Your task to perform on an android device: What's on my calendar tomorrow? Image 0: 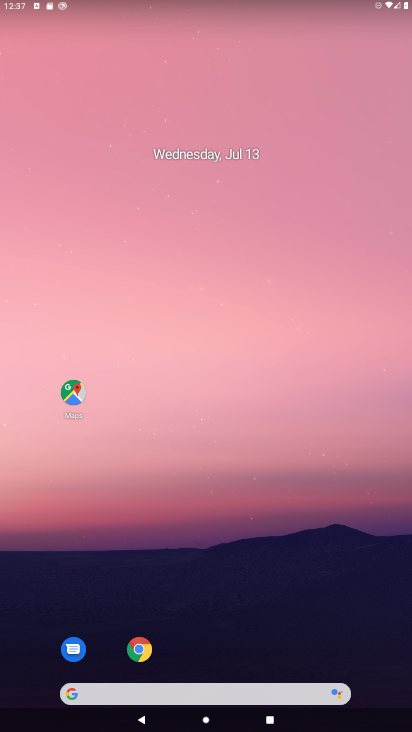
Step 0: drag from (362, 649) to (331, 137)
Your task to perform on an android device: What's on my calendar tomorrow? Image 1: 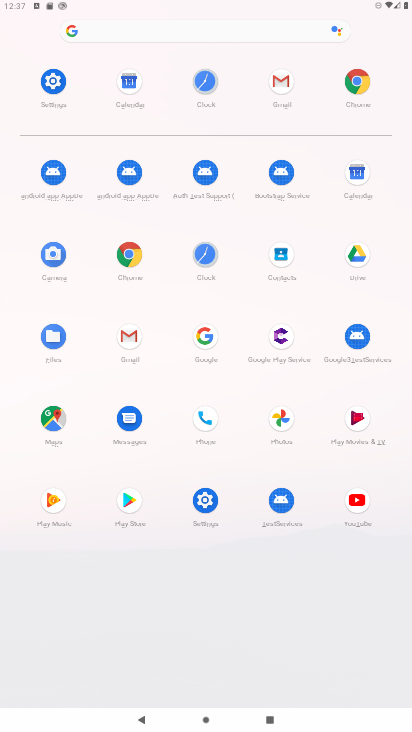
Step 1: click (355, 172)
Your task to perform on an android device: What's on my calendar tomorrow? Image 2: 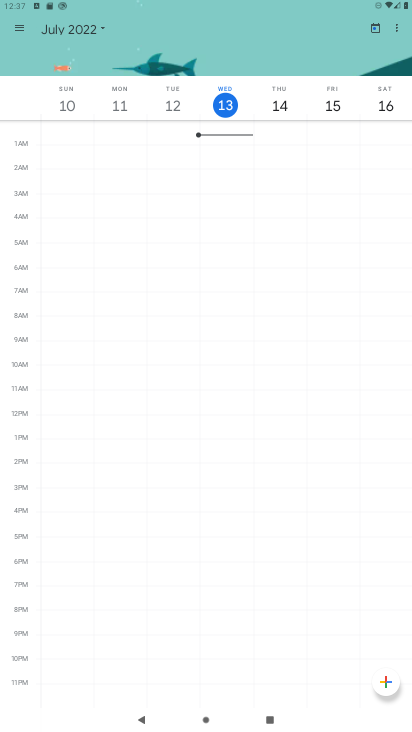
Step 2: click (15, 26)
Your task to perform on an android device: What's on my calendar tomorrow? Image 3: 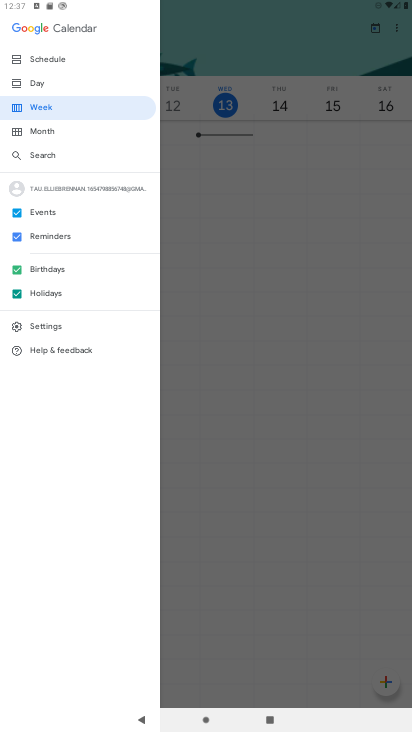
Step 3: click (38, 81)
Your task to perform on an android device: What's on my calendar tomorrow? Image 4: 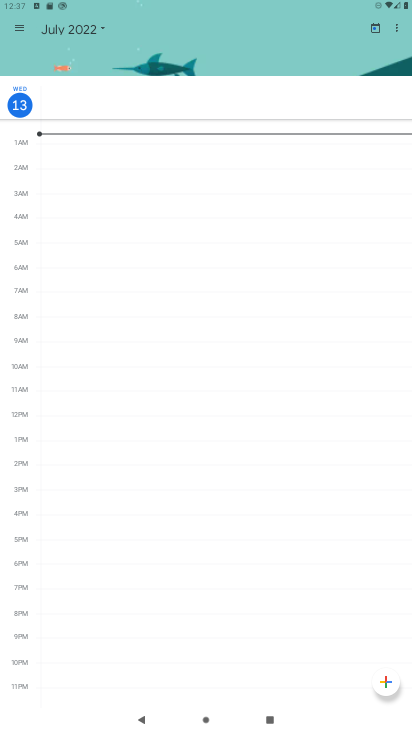
Step 4: click (96, 30)
Your task to perform on an android device: What's on my calendar tomorrow? Image 5: 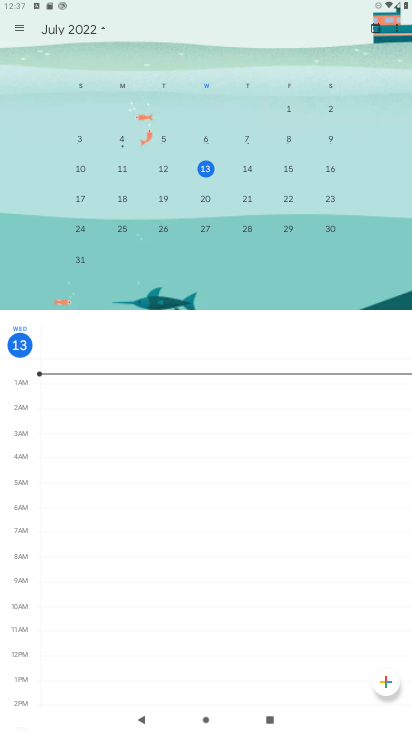
Step 5: click (251, 171)
Your task to perform on an android device: What's on my calendar tomorrow? Image 6: 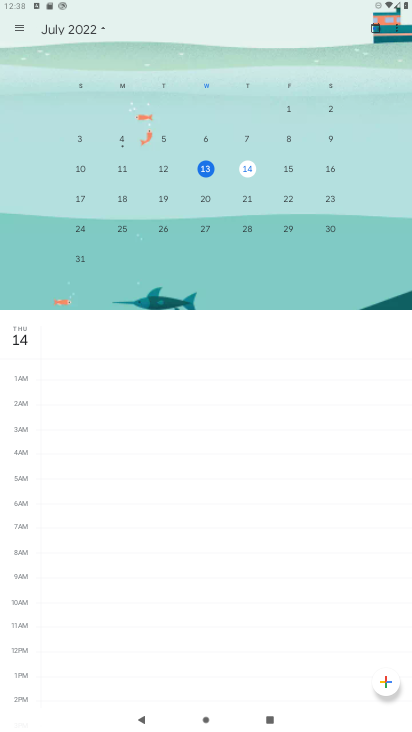
Step 6: task complete